Your task to perform on an android device: Open wifi settings Image 0: 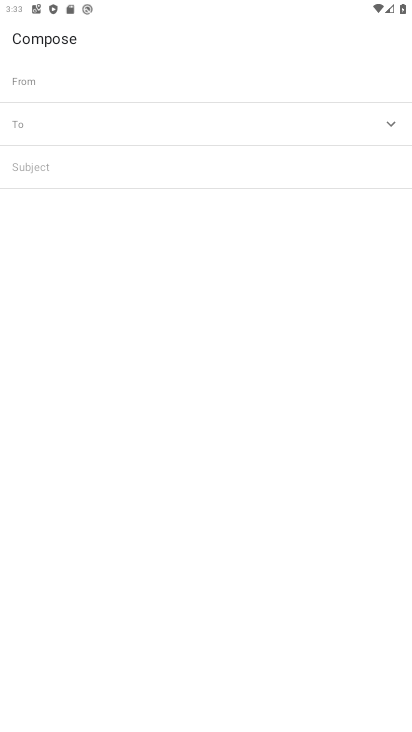
Step 0: press home button
Your task to perform on an android device: Open wifi settings Image 1: 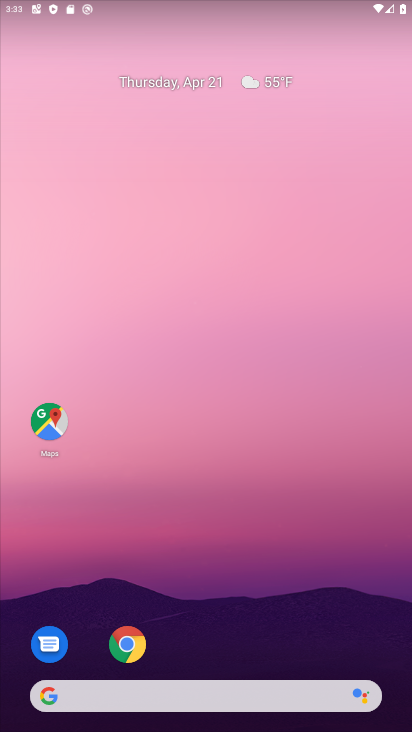
Step 1: drag from (220, 658) to (121, 114)
Your task to perform on an android device: Open wifi settings Image 2: 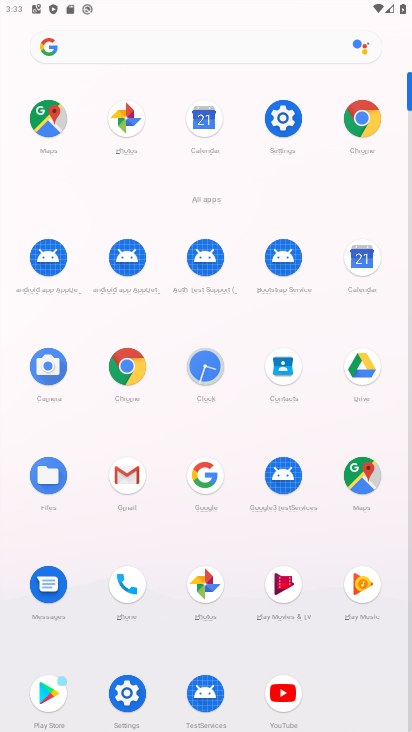
Step 2: click (280, 112)
Your task to perform on an android device: Open wifi settings Image 3: 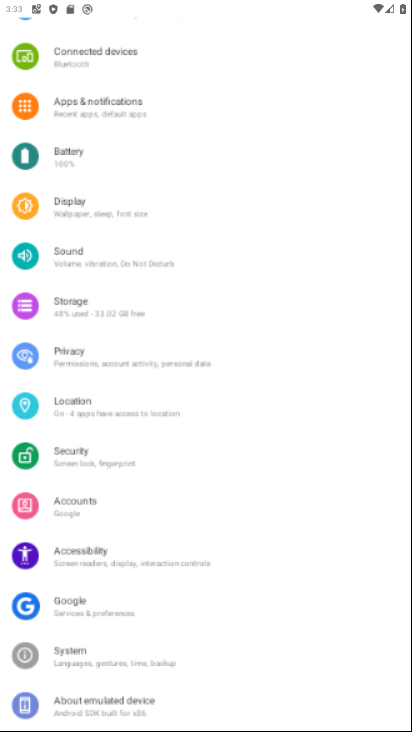
Step 3: drag from (207, 220) to (225, 650)
Your task to perform on an android device: Open wifi settings Image 4: 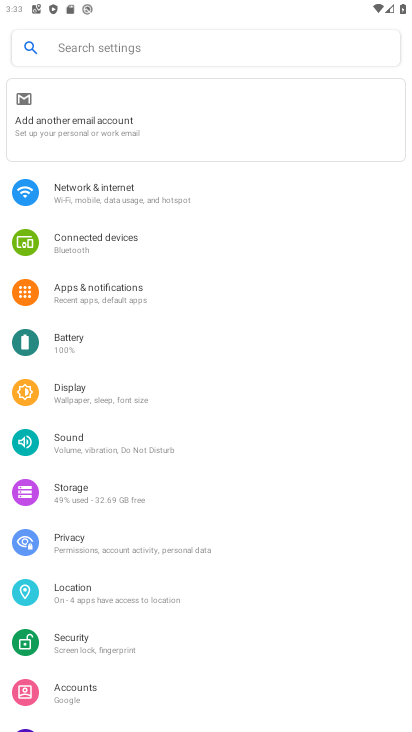
Step 4: click (162, 189)
Your task to perform on an android device: Open wifi settings Image 5: 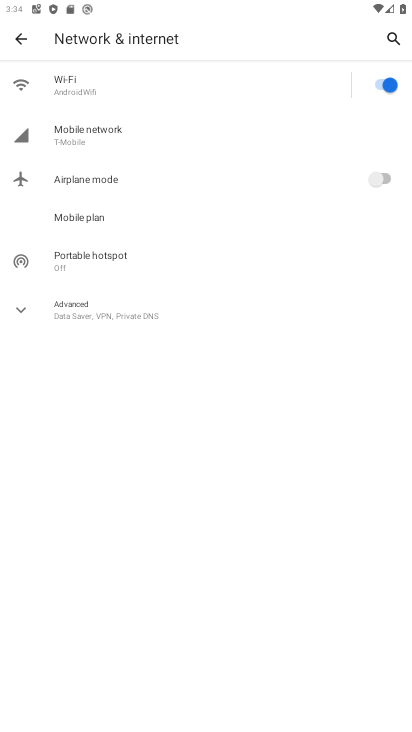
Step 5: click (90, 90)
Your task to perform on an android device: Open wifi settings Image 6: 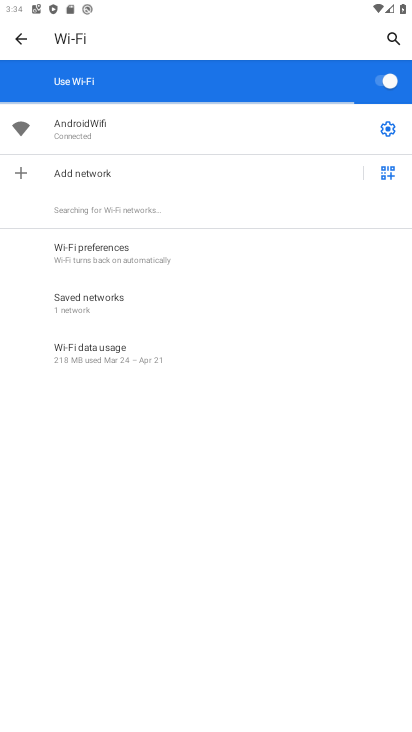
Step 6: task complete